Your task to perform on an android device: all mails in gmail Image 0: 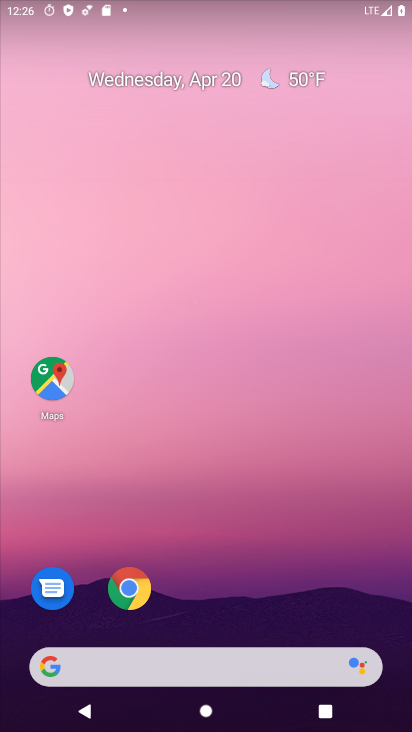
Step 0: drag from (210, 631) to (153, 32)
Your task to perform on an android device: all mails in gmail Image 1: 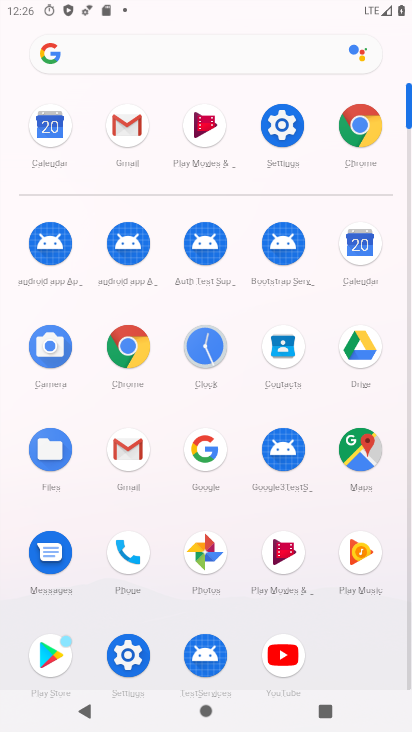
Step 1: click (131, 122)
Your task to perform on an android device: all mails in gmail Image 2: 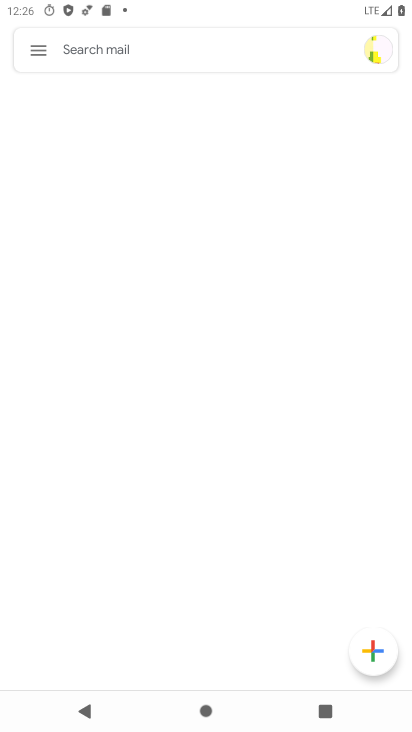
Step 2: click (41, 47)
Your task to perform on an android device: all mails in gmail Image 3: 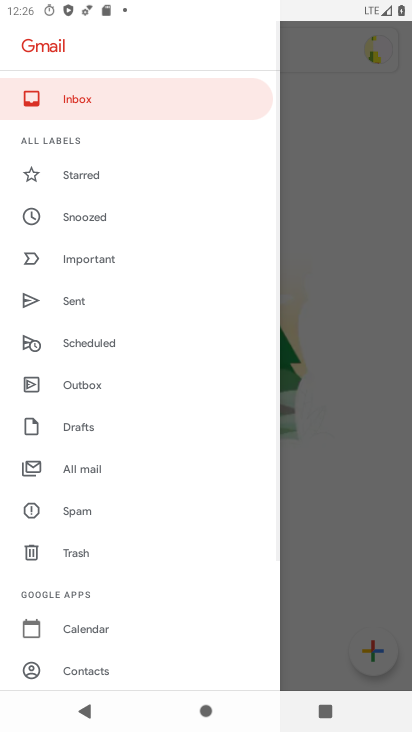
Step 3: click (110, 464)
Your task to perform on an android device: all mails in gmail Image 4: 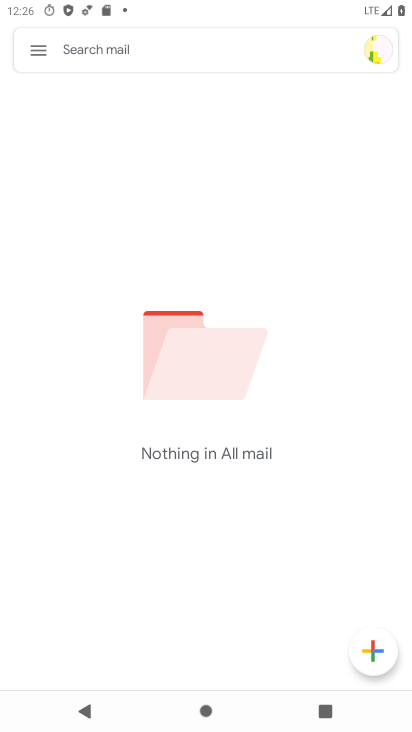
Step 4: task complete